Your task to perform on an android device: Toggle the flashlight Image 0: 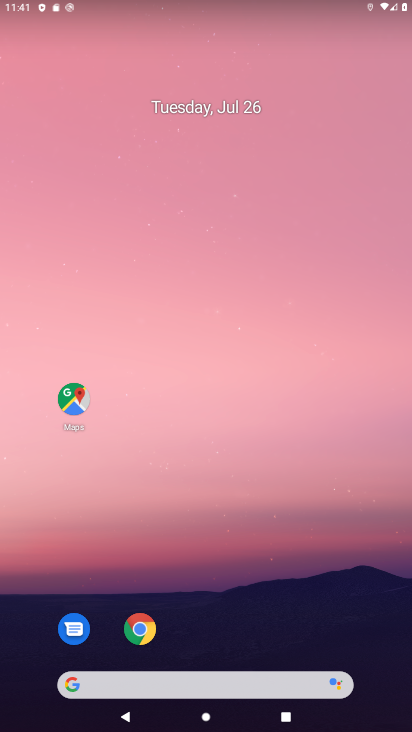
Step 0: drag from (226, 717) to (249, 310)
Your task to perform on an android device: Toggle the flashlight Image 1: 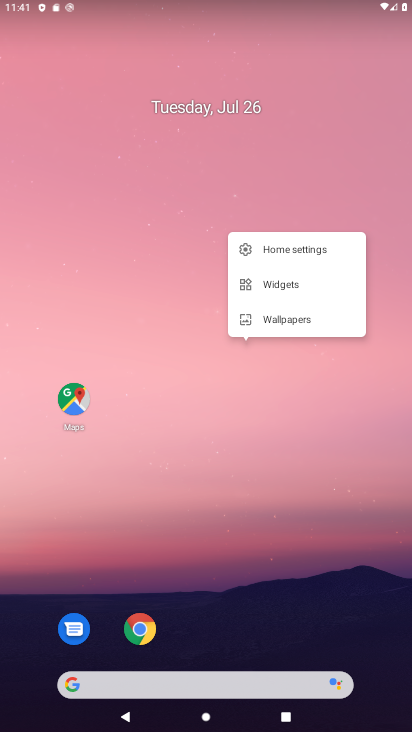
Step 1: click (201, 430)
Your task to perform on an android device: Toggle the flashlight Image 2: 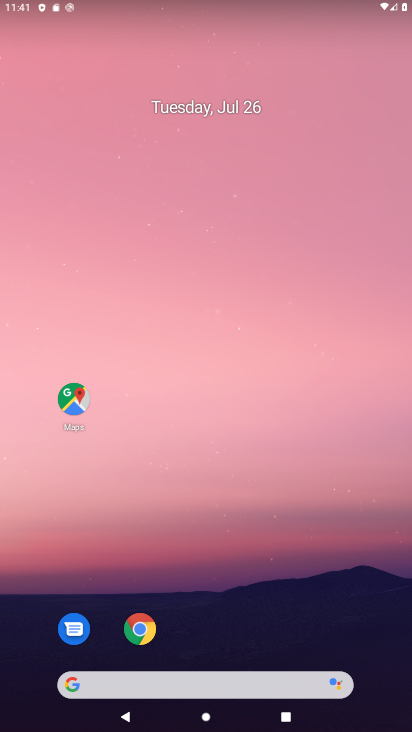
Step 2: drag from (236, 726) to (237, 127)
Your task to perform on an android device: Toggle the flashlight Image 3: 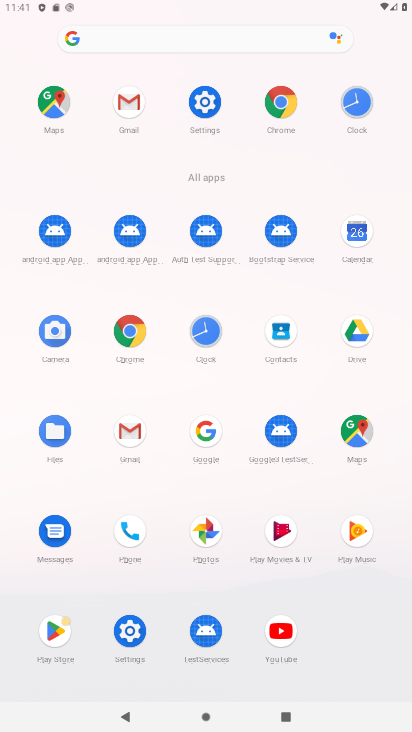
Step 3: click (205, 99)
Your task to perform on an android device: Toggle the flashlight Image 4: 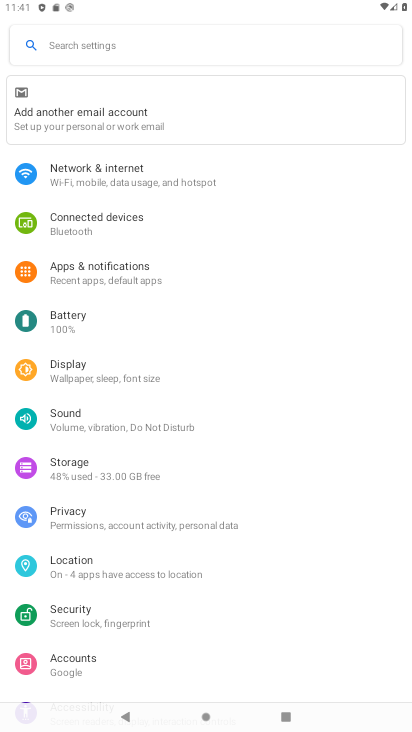
Step 4: task complete